Your task to perform on an android device: Show me the alarms in the clock app Image 0: 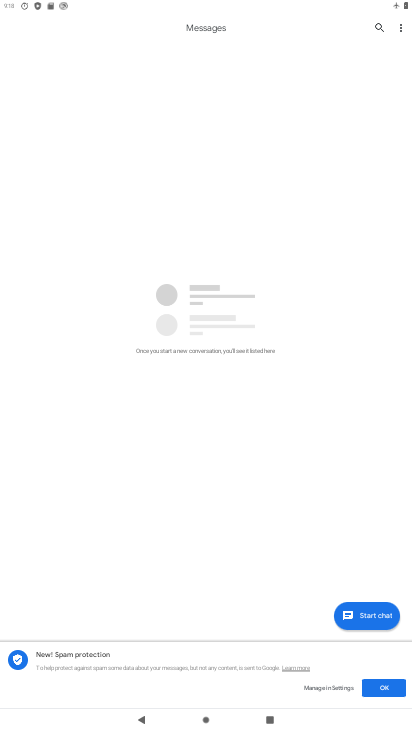
Step 0: press home button
Your task to perform on an android device: Show me the alarms in the clock app Image 1: 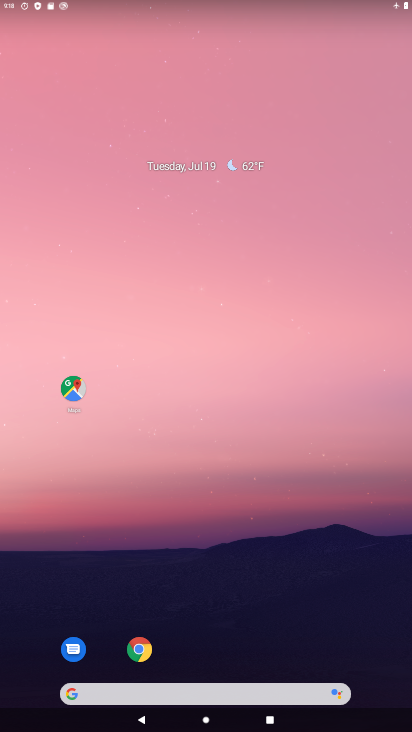
Step 1: drag from (274, 573) to (298, 89)
Your task to perform on an android device: Show me the alarms in the clock app Image 2: 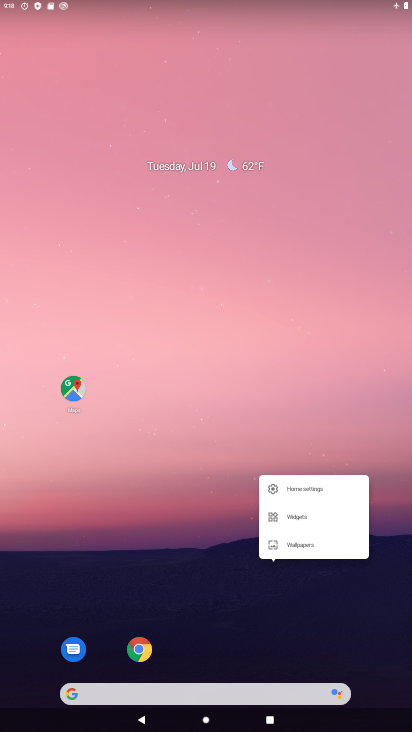
Step 2: click (208, 581)
Your task to perform on an android device: Show me the alarms in the clock app Image 3: 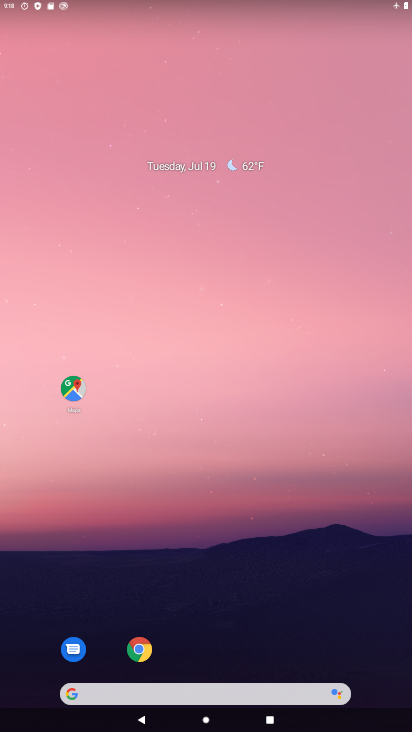
Step 3: drag from (239, 618) to (192, 229)
Your task to perform on an android device: Show me the alarms in the clock app Image 4: 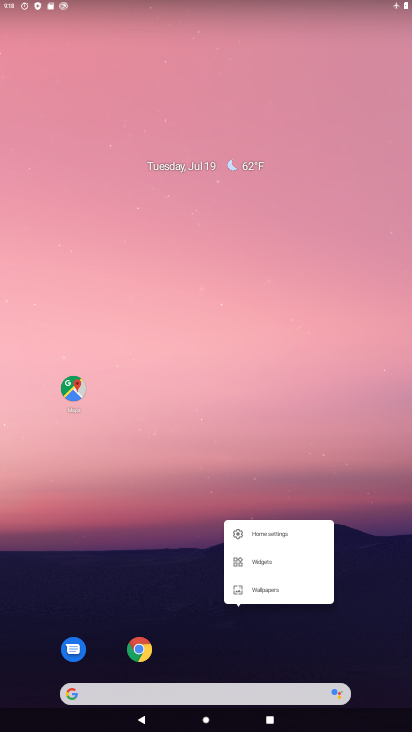
Step 4: click (230, 400)
Your task to perform on an android device: Show me the alarms in the clock app Image 5: 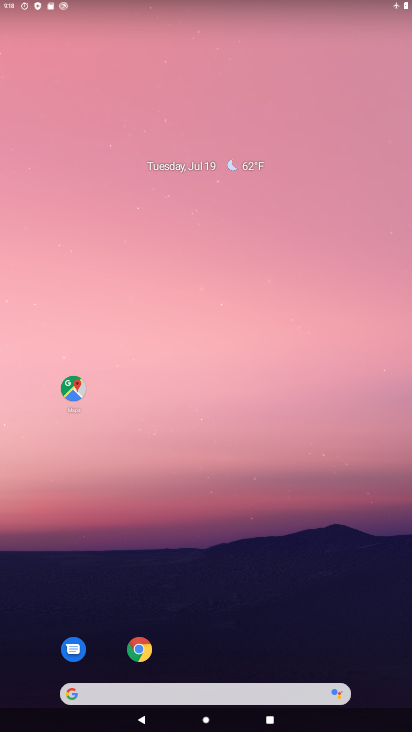
Step 5: drag from (247, 616) to (252, 160)
Your task to perform on an android device: Show me the alarms in the clock app Image 6: 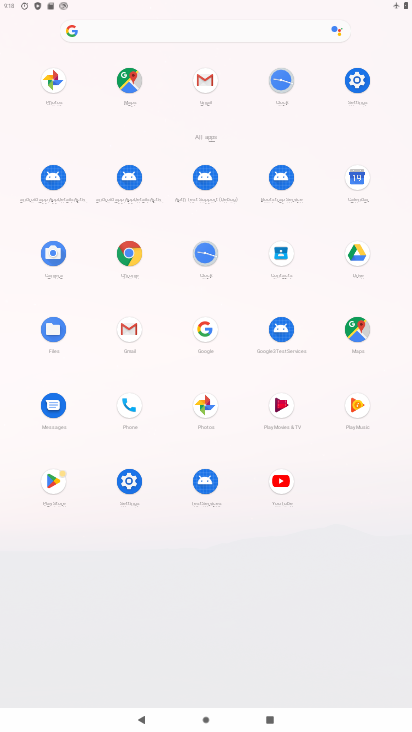
Step 6: click (284, 89)
Your task to perform on an android device: Show me the alarms in the clock app Image 7: 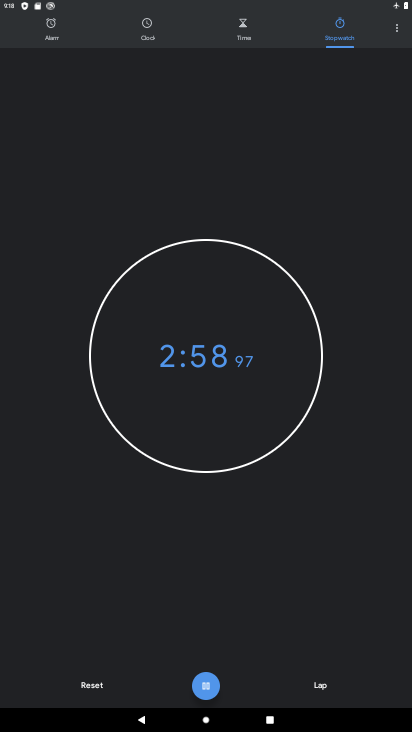
Step 7: click (156, 34)
Your task to perform on an android device: Show me the alarms in the clock app Image 8: 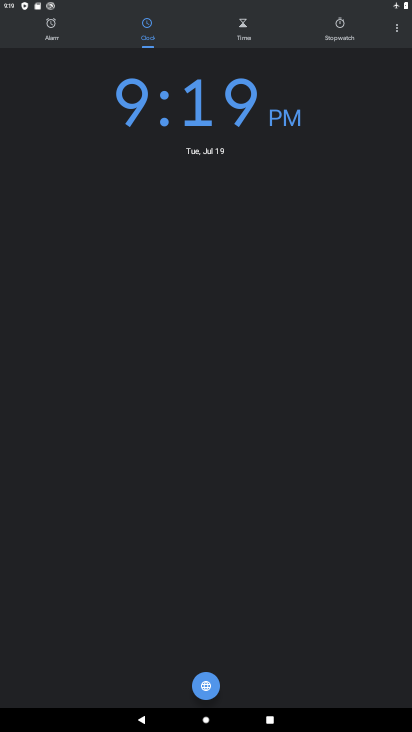
Step 8: click (63, 31)
Your task to perform on an android device: Show me the alarms in the clock app Image 9: 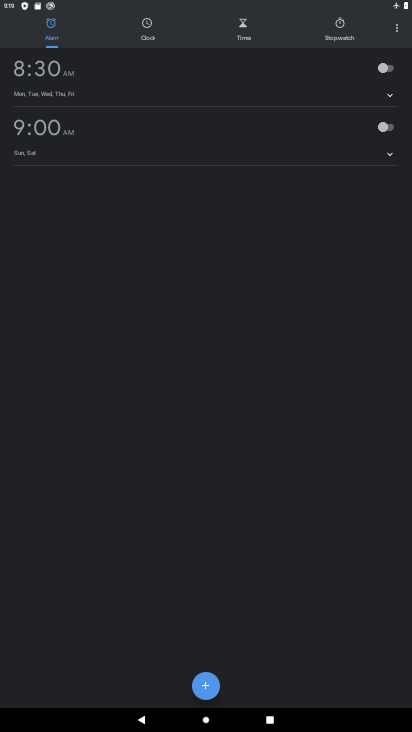
Step 9: task complete